Your task to perform on an android device: change the clock style Image 0: 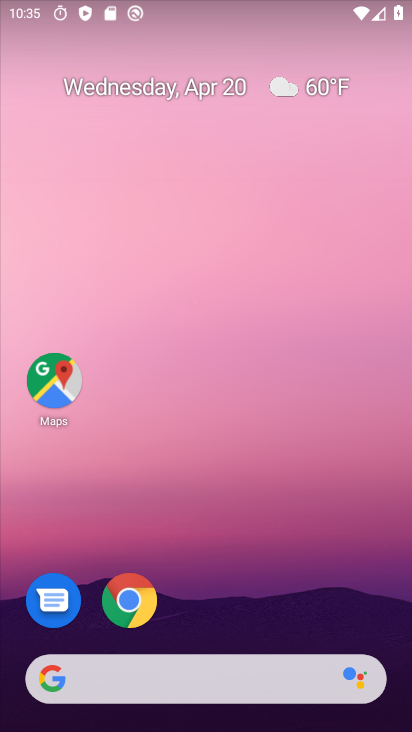
Step 0: drag from (188, 621) to (152, 1)
Your task to perform on an android device: change the clock style Image 1: 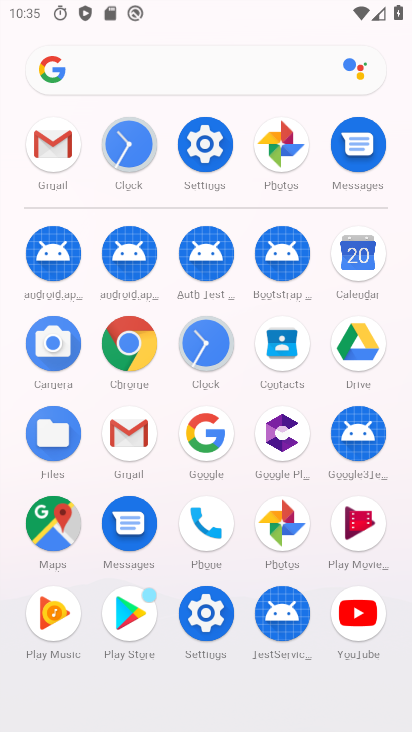
Step 1: click (131, 209)
Your task to perform on an android device: change the clock style Image 2: 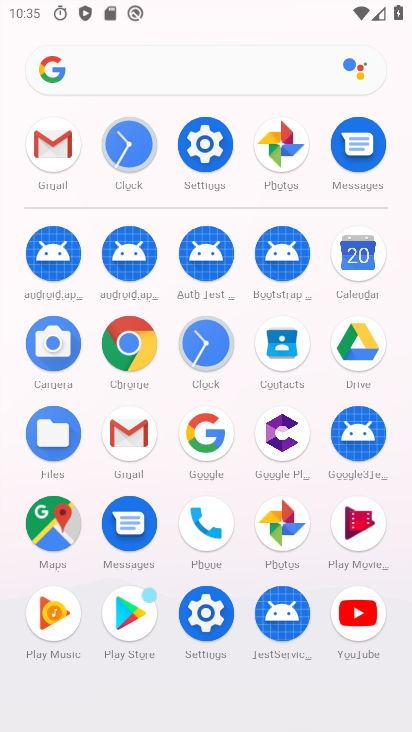
Step 2: click (127, 174)
Your task to perform on an android device: change the clock style Image 3: 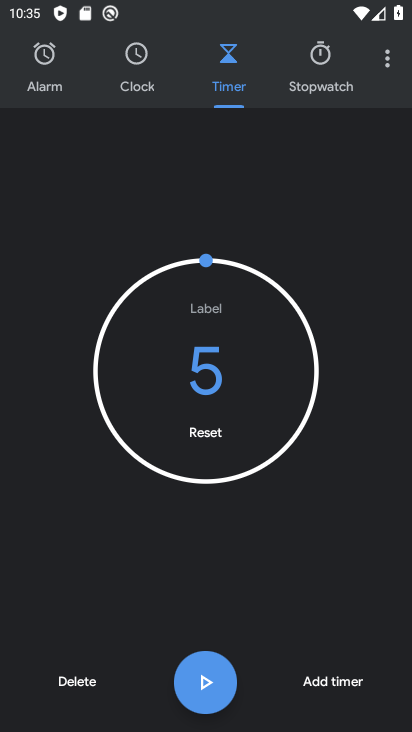
Step 3: click (384, 56)
Your task to perform on an android device: change the clock style Image 4: 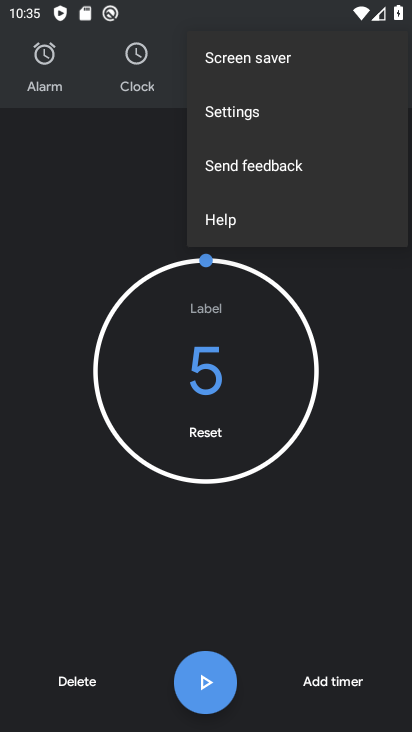
Step 4: click (292, 94)
Your task to perform on an android device: change the clock style Image 5: 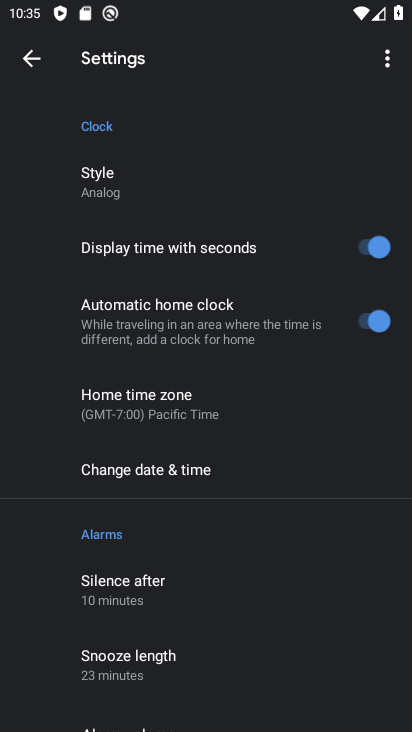
Step 5: click (164, 204)
Your task to perform on an android device: change the clock style Image 6: 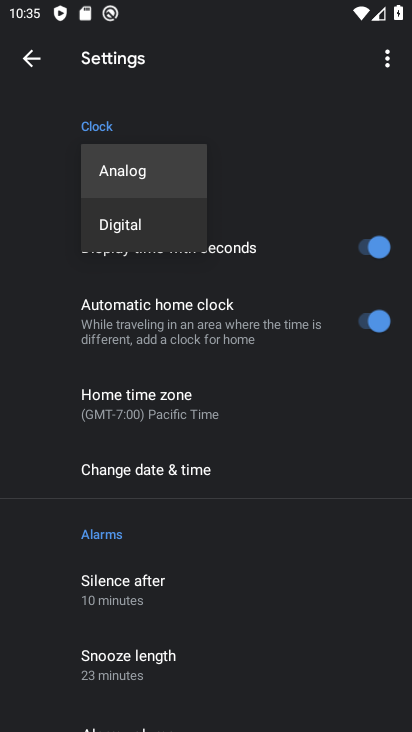
Step 6: click (157, 213)
Your task to perform on an android device: change the clock style Image 7: 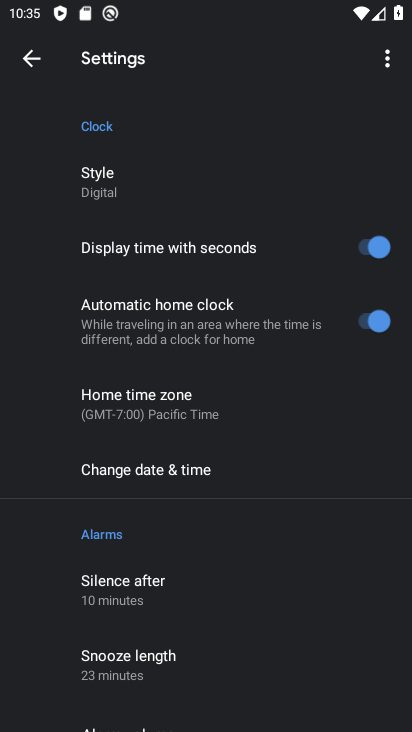
Step 7: task complete